Your task to perform on an android device: Open eBay Image 0: 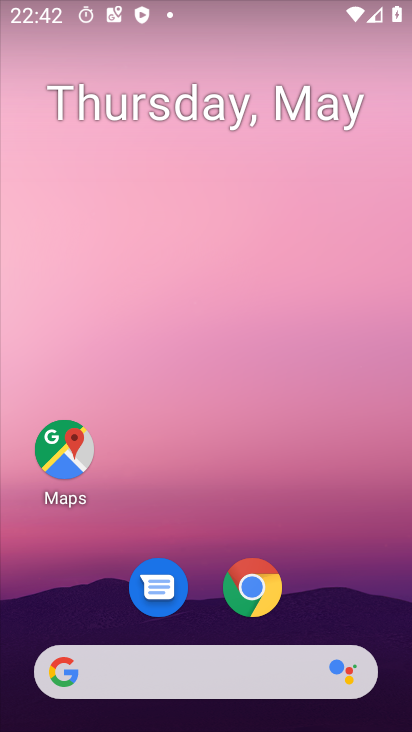
Step 0: click (264, 593)
Your task to perform on an android device: Open eBay Image 1: 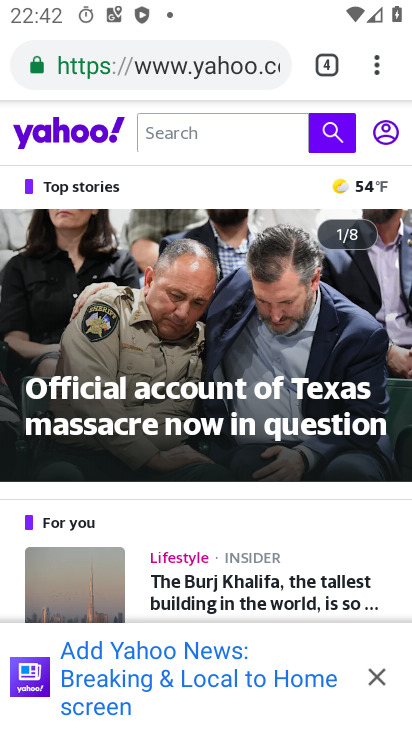
Step 1: click (155, 64)
Your task to perform on an android device: Open eBay Image 2: 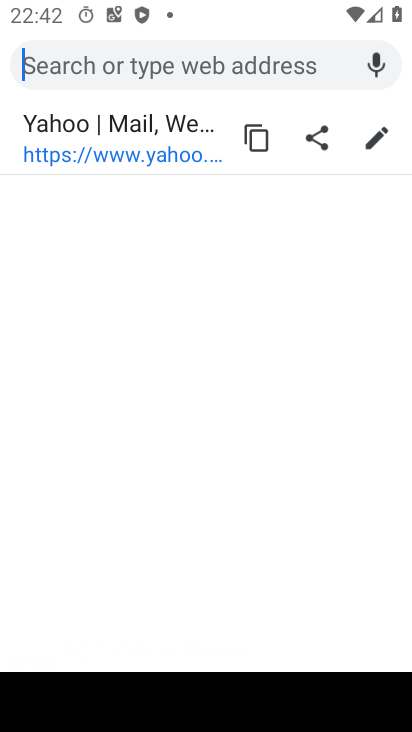
Step 2: type "ebay"
Your task to perform on an android device: Open eBay Image 3: 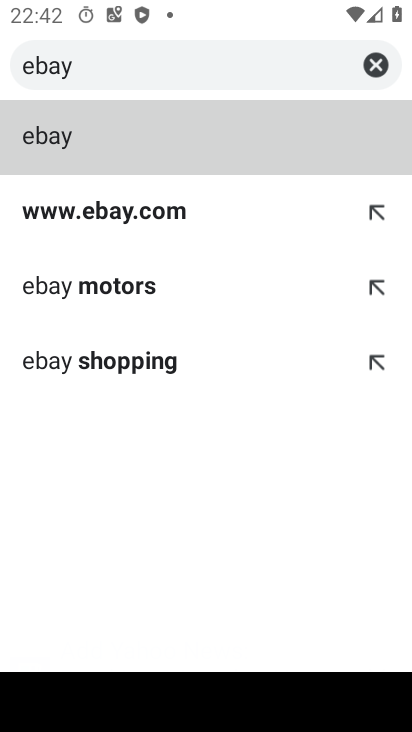
Step 3: click (37, 149)
Your task to perform on an android device: Open eBay Image 4: 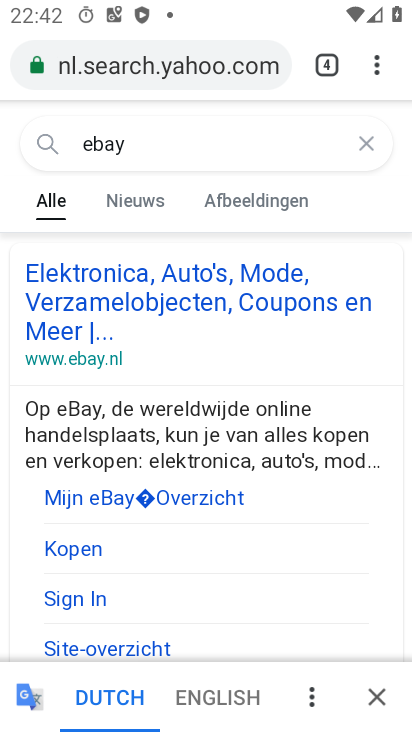
Step 4: click (45, 366)
Your task to perform on an android device: Open eBay Image 5: 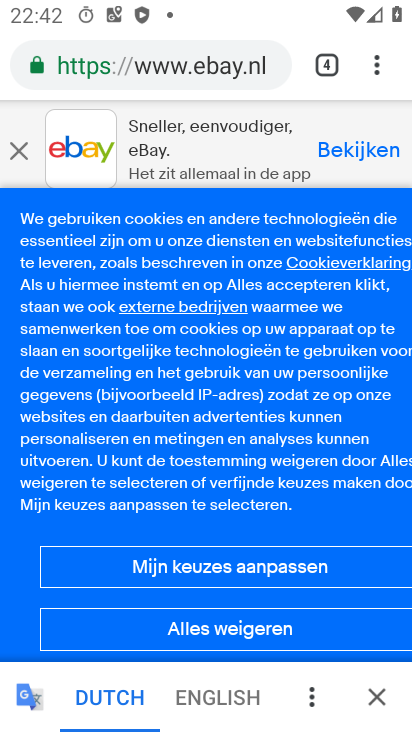
Step 5: task complete